Your task to perform on an android device: allow cookies in the chrome app Image 0: 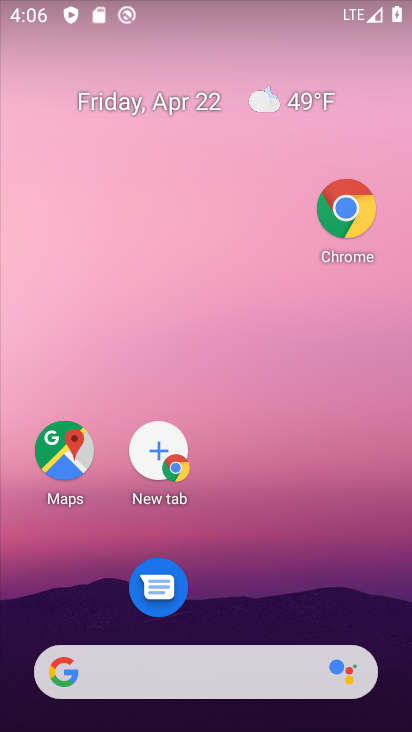
Step 0: task complete